Your task to perform on an android device: turn on priority inbox in the gmail app Image 0: 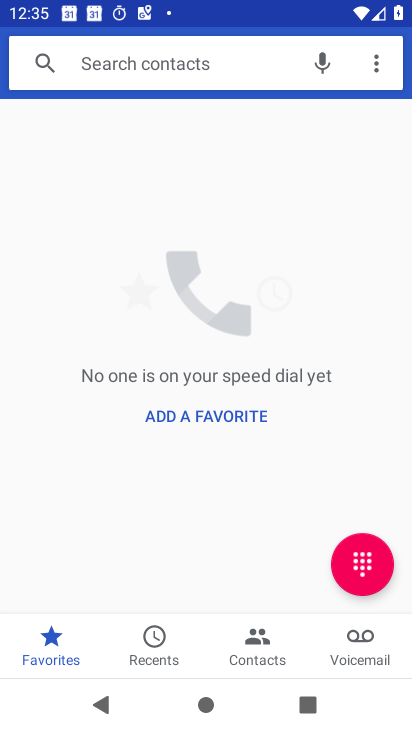
Step 0: press home button
Your task to perform on an android device: turn on priority inbox in the gmail app Image 1: 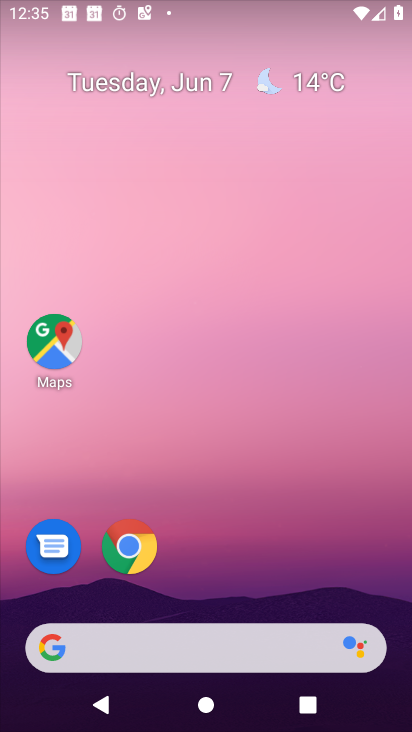
Step 1: drag from (194, 604) to (308, 192)
Your task to perform on an android device: turn on priority inbox in the gmail app Image 2: 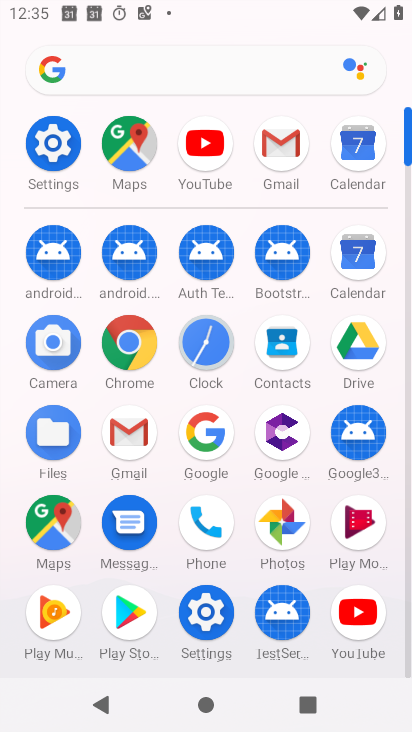
Step 2: click (126, 446)
Your task to perform on an android device: turn on priority inbox in the gmail app Image 3: 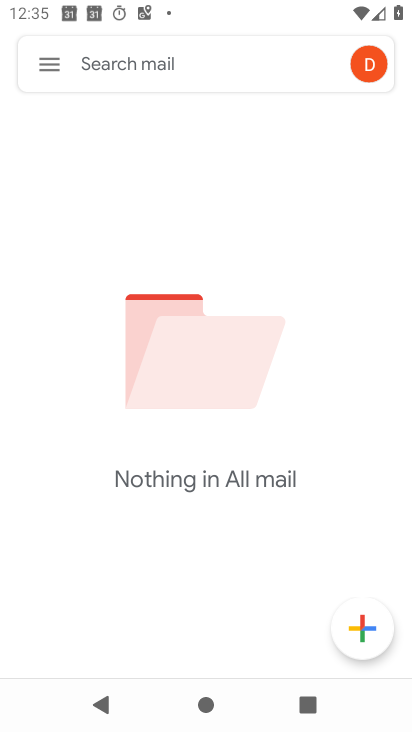
Step 3: click (53, 58)
Your task to perform on an android device: turn on priority inbox in the gmail app Image 4: 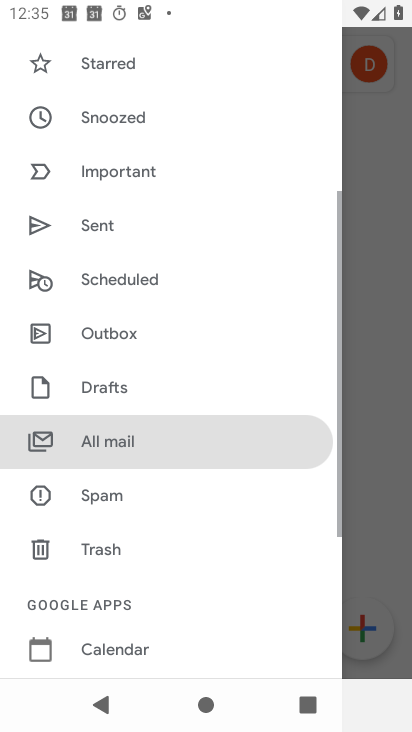
Step 4: drag from (164, 597) to (257, 219)
Your task to perform on an android device: turn on priority inbox in the gmail app Image 5: 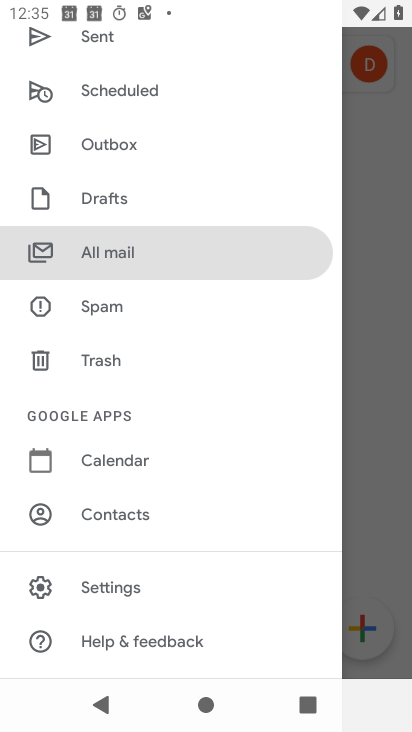
Step 5: click (115, 583)
Your task to perform on an android device: turn on priority inbox in the gmail app Image 6: 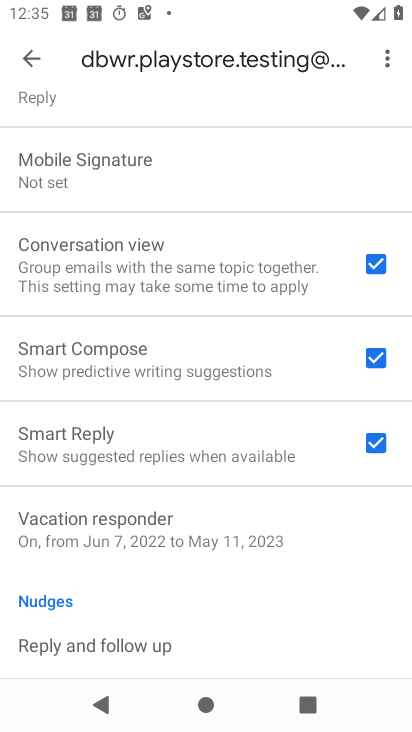
Step 6: drag from (223, 252) to (171, 698)
Your task to perform on an android device: turn on priority inbox in the gmail app Image 7: 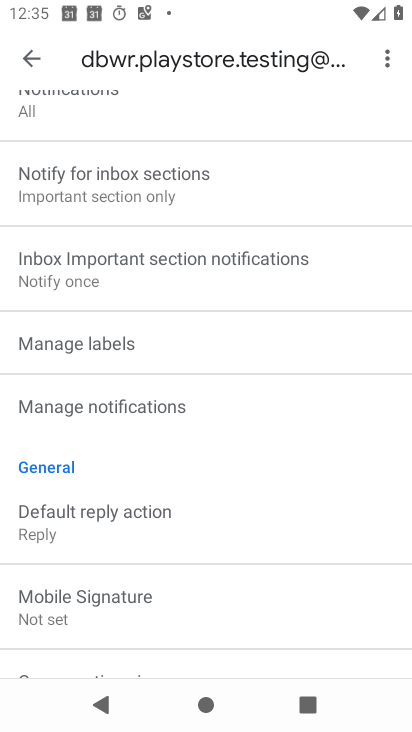
Step 7: drag from (232, 253) to (212, 691)
Your task to perform on an android device: turn on priority inbox in the gmail app Image 8: 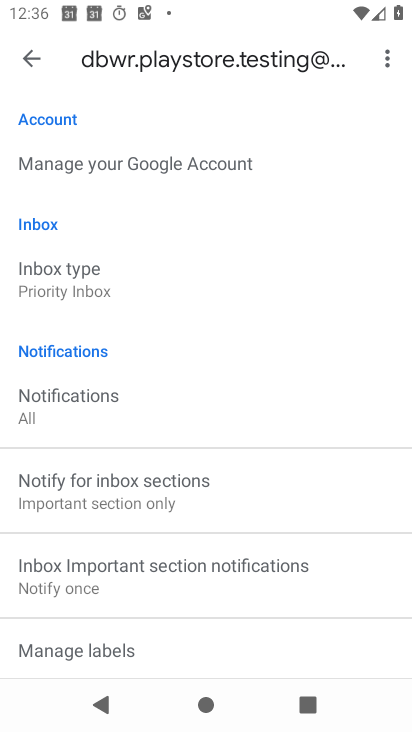
Step 8: click (111, 289)
Your task to perform on an android device: turn on priority inbox in the gmail app Image 9: 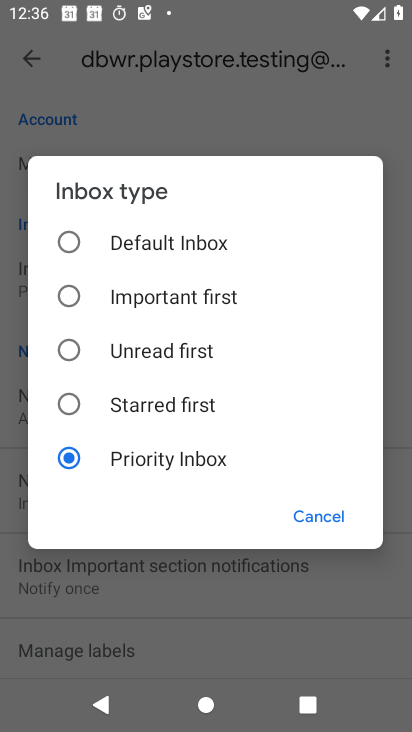
Step 9: task complete